Your task to perform on an android device: toggle data saver in the chrome app Image 0: 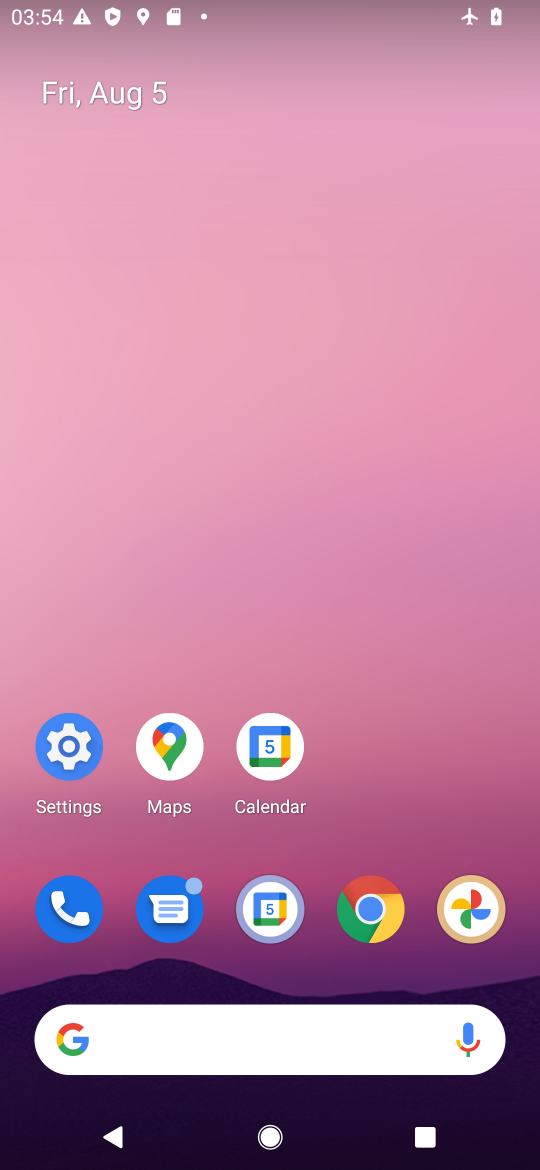
Step 0: click (382, 910)
Your task to perform on an android device: toggle data saver in the chrome app Image 1: 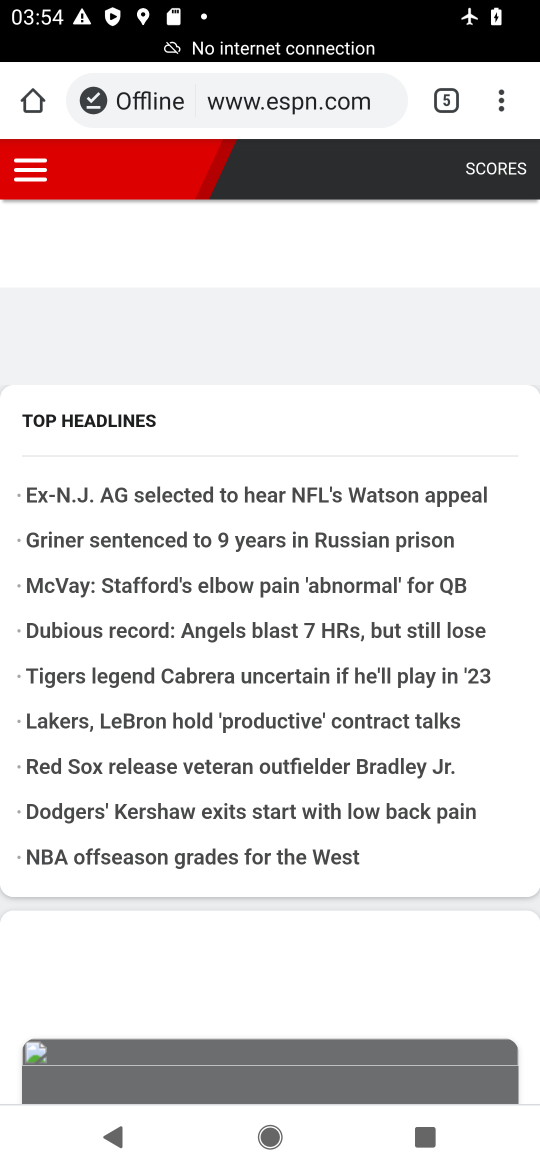
Step 1: click (502, 101)
Your task to perform on an android device: toggle data saver in the chrome app Image 2: 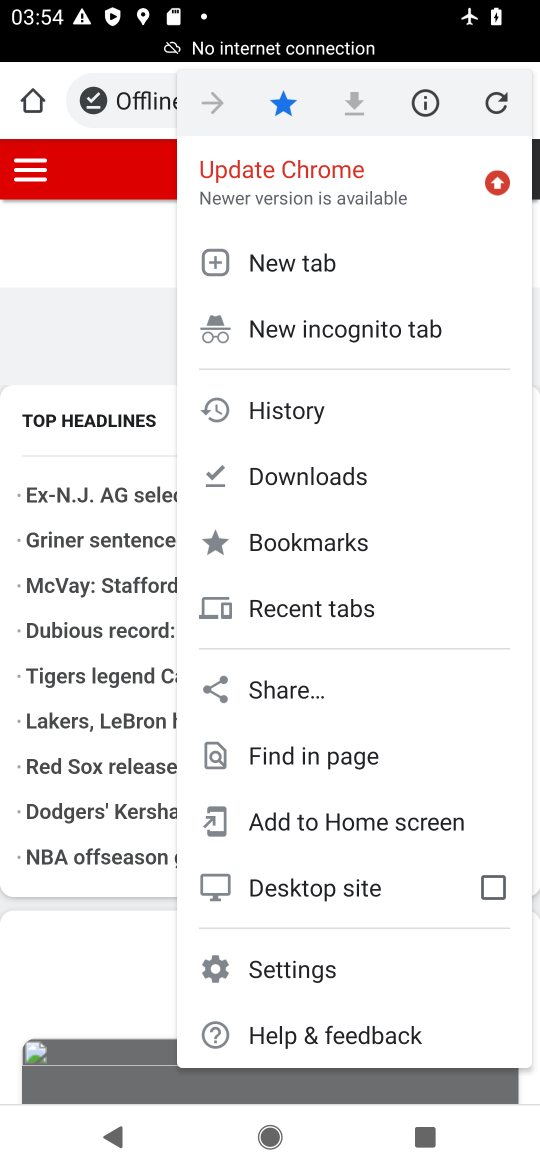
Step 2: click (297, 968)
Your task to perform on an android device: toggle data saver in the chrome app Image 3: 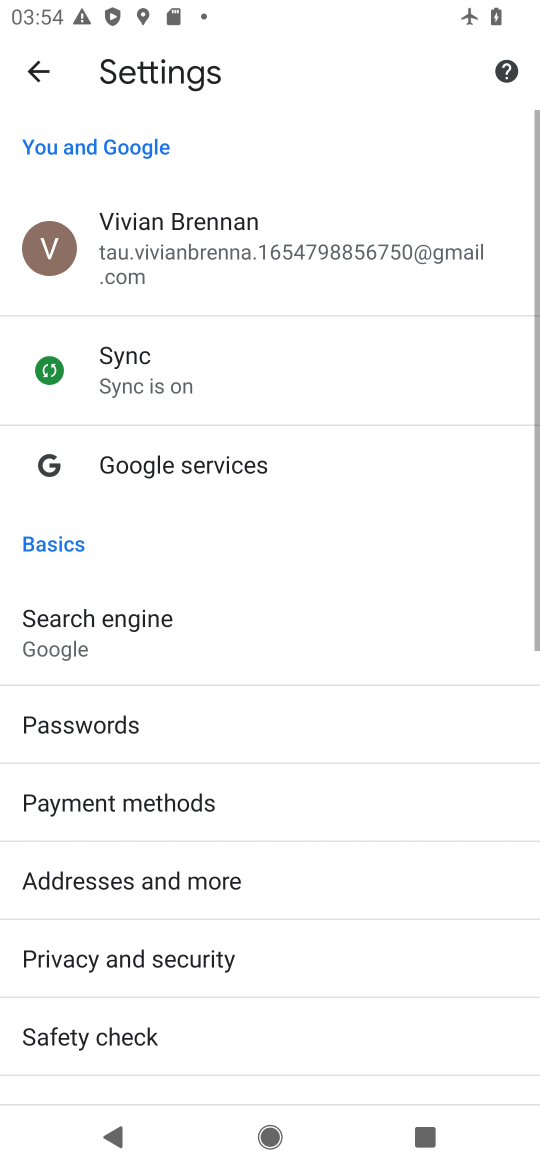
Step 3: drag from (377, 904) to (376, 340)
Your task to perform on an android device: toggle data saver in the chrome app Image 4: 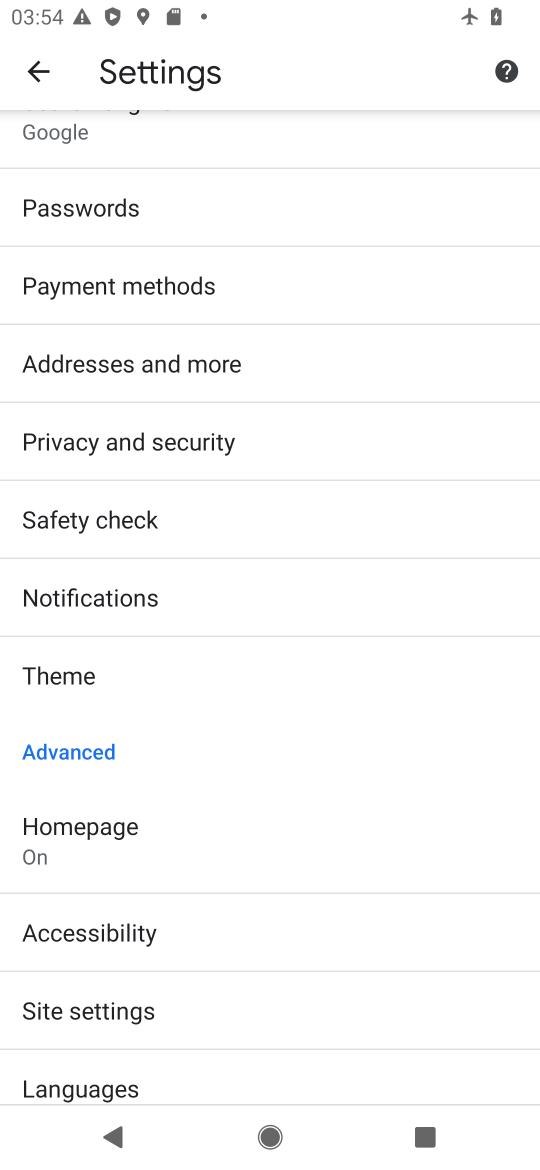
Step 4: drag from (222, 1014) to (166, 636)
Your task to perform on an android device: toggle data saver in the chrome app Image 5: 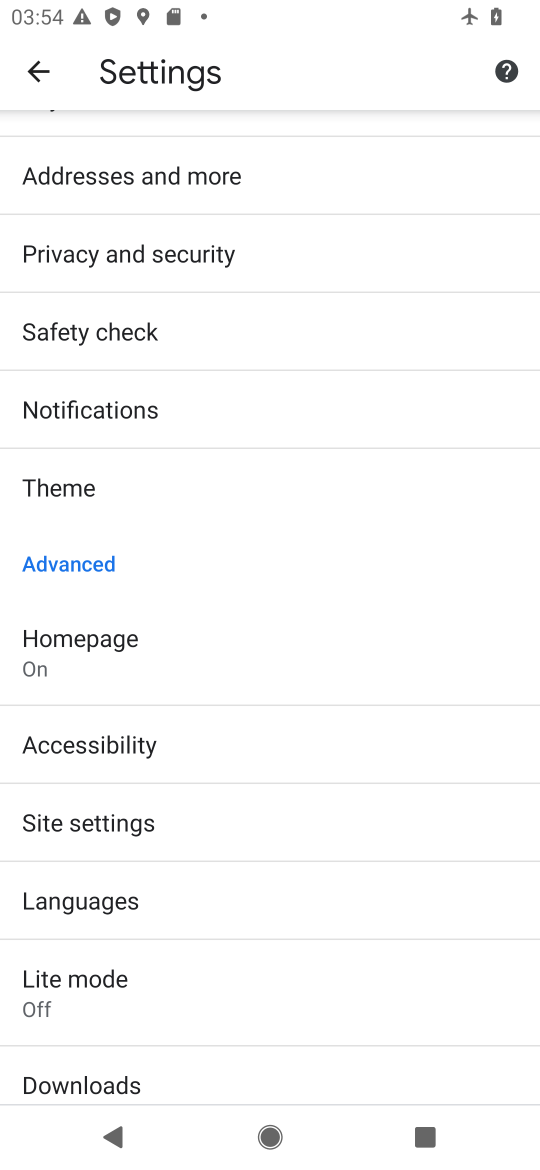
Step 5: click (80, 981)
Your task to perform on an android device: toggle data saver in the chrome app Image 6: 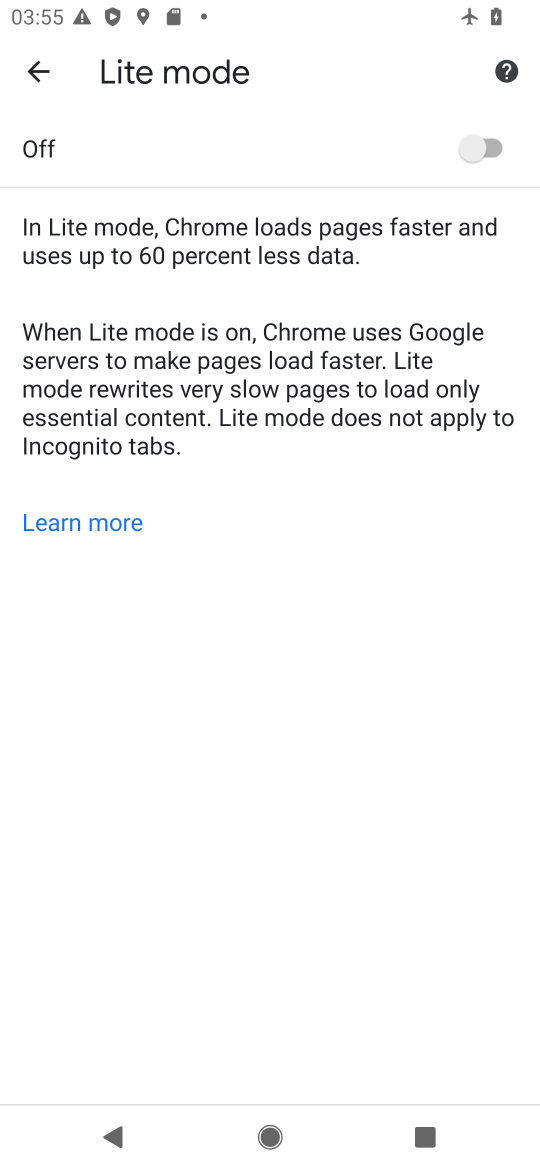
Step 6: click (477, 146)
Your task to perform on an android device: toggle data saver in the chrome app Image 7: 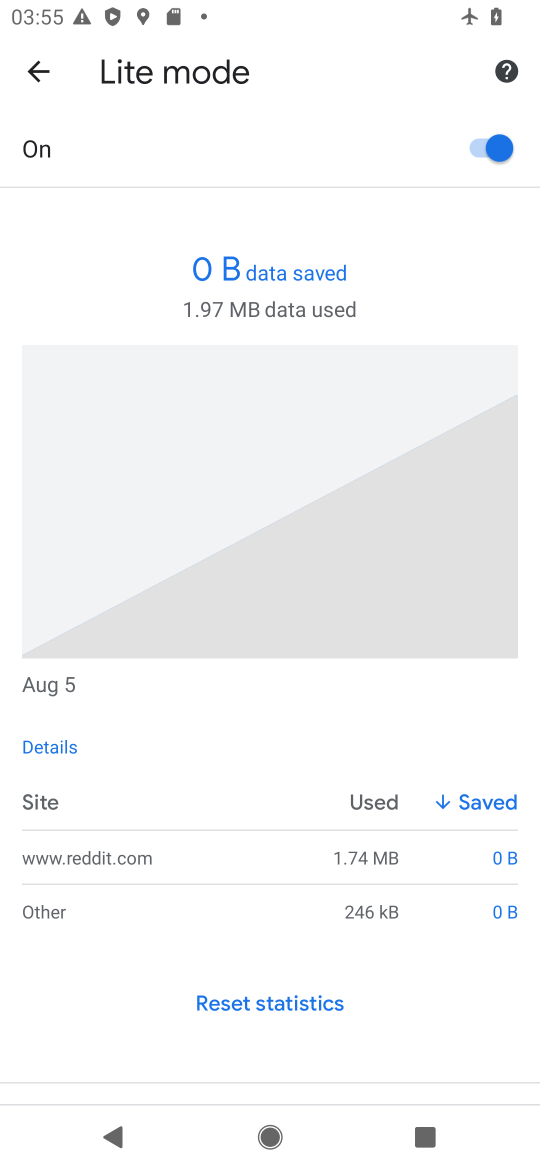
Step 7: task complete